Your task to perform on an android device: show emergency info Image 0: 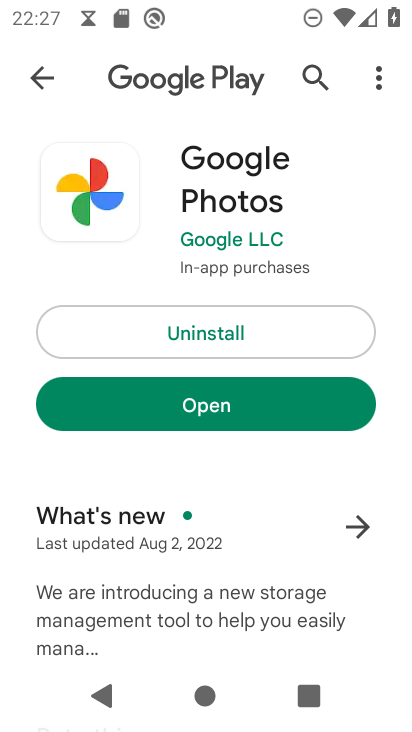
Step 0: press home button
Your task to perform on an android device: show emergency info Image 1: 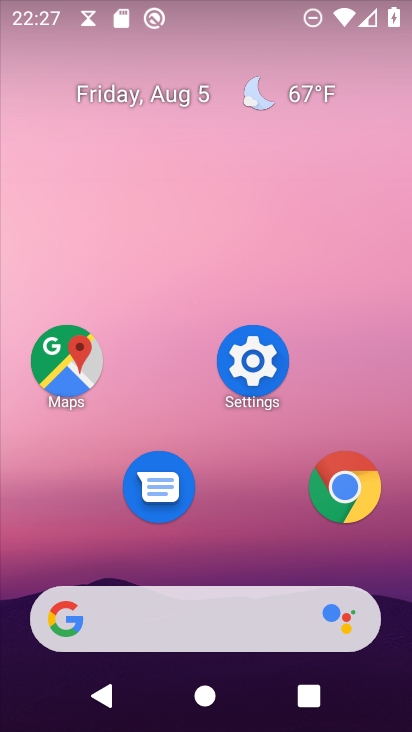
Step 1: click (250, 368)
Your task to perform on an android device: show emergency info Image 2: 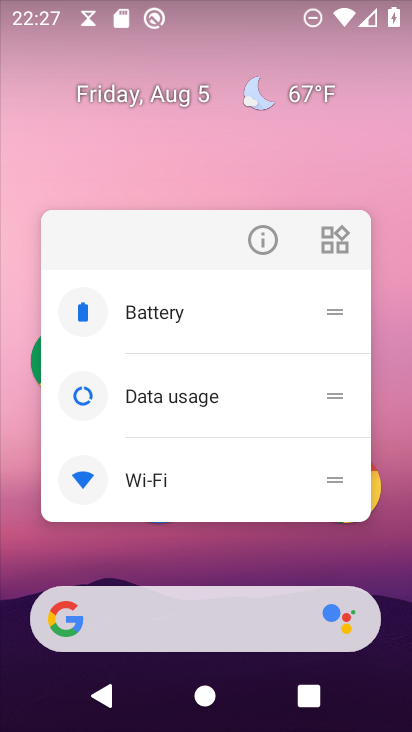
Step 2: click (347, 166)
Your task to perform on an android device: show emergency info Image 3: 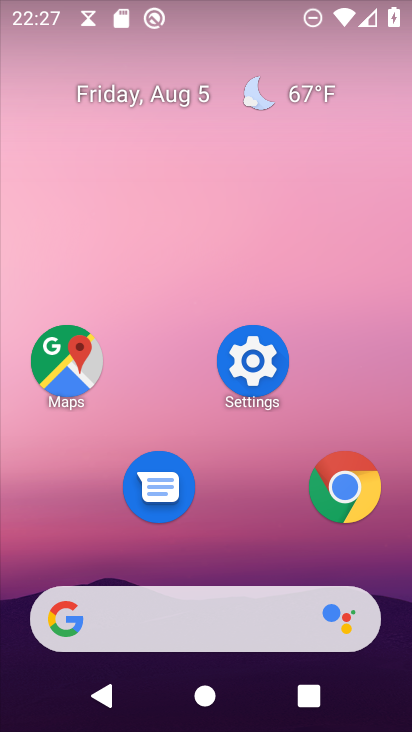
Step 3: click (254, 362)
Your task to perform on an android device: show emergency info Image 4: 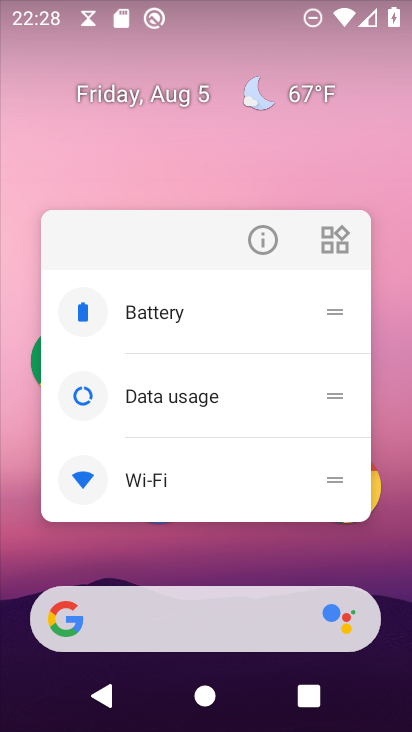
Step 4: click (324, 168)
Your task to perform on an android device: show emergency info Image 5: 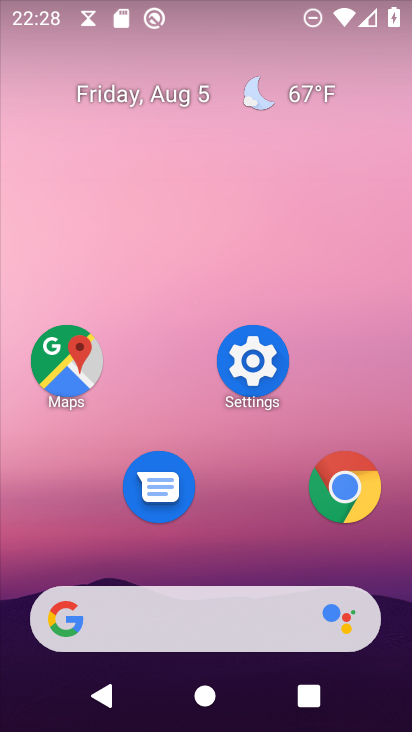
Step 5: click (260, 372)
Your task to perform on an android device: show emergency info Image 6: 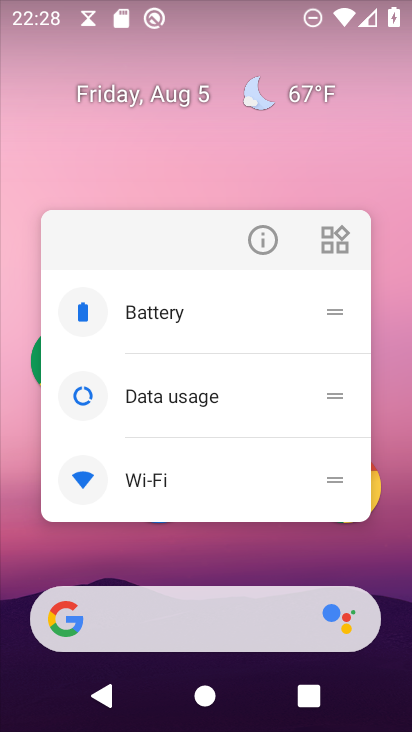
Step 6: click (385, 224)
Your task to perform on an android device: show emergency info Image 7: 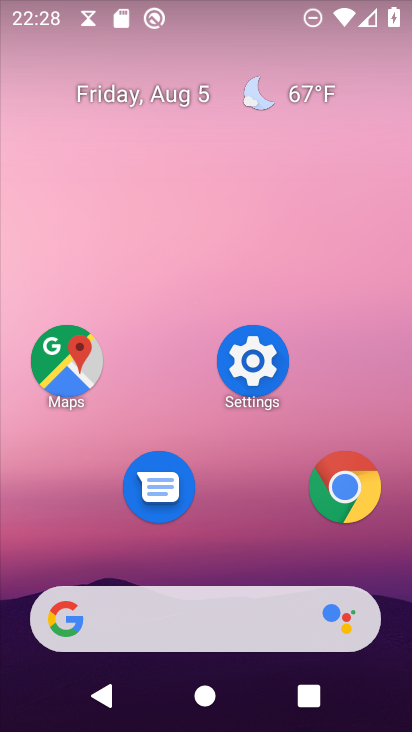
Step 7: click (250, 373)
Your task to perform on an android device: show emergency info Image 8: 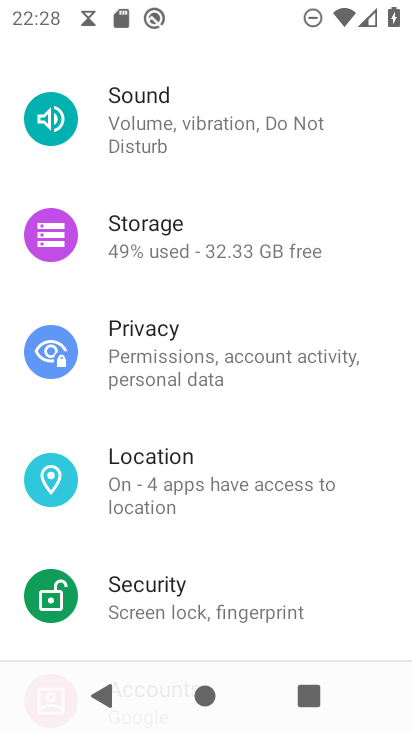
Step 8: drag from (249, 481) to (292, 210)
Your task to perform on an android device: show emergency info Image 9: 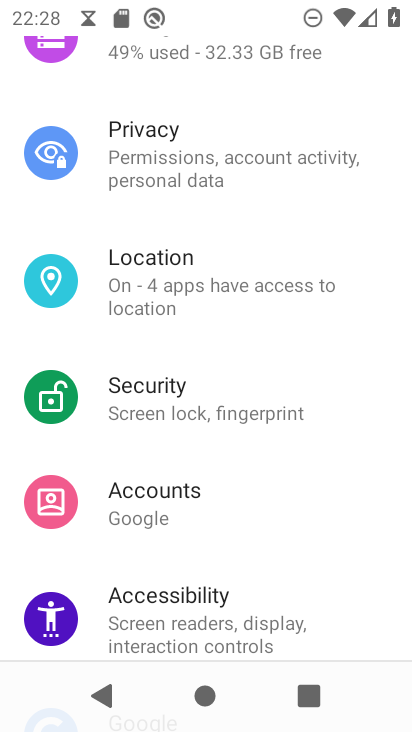
Step 9: drag from (337, 114) to (270, 619)
Your task to perform on an android device: show emergency info Image 10: 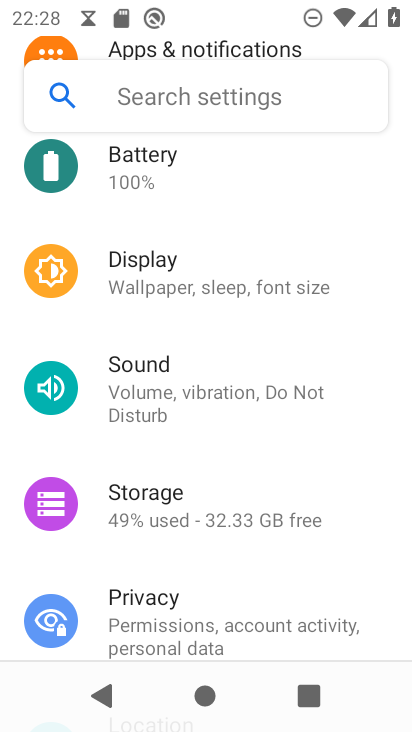
Step 10: drag from (247, 567) to (327, 134)
Your task to perform on an android device: show emergency info Image 11: 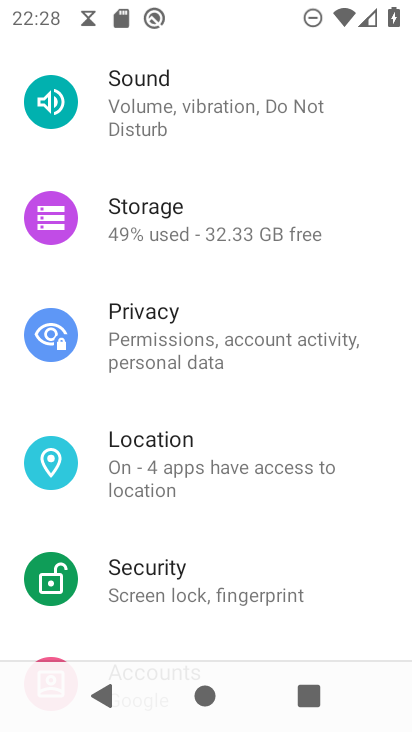
Step 11: drag from (227, 625) to (325, 11)
Your task to perform on an android device: show emergency info Image 12: 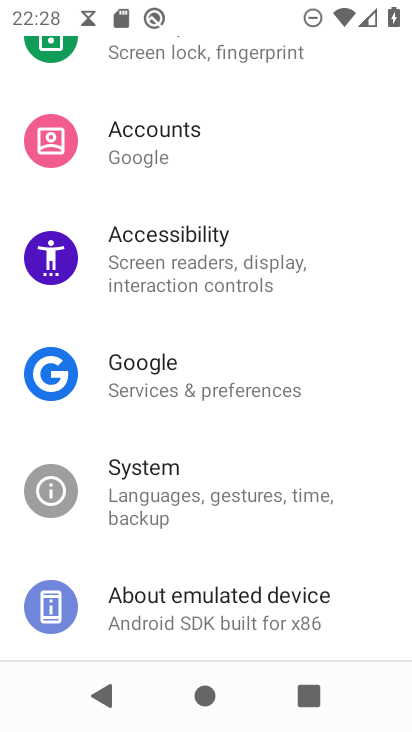
Step 12: click (211, 612)
Your task to perform on an android device: show emergency info Image 13: 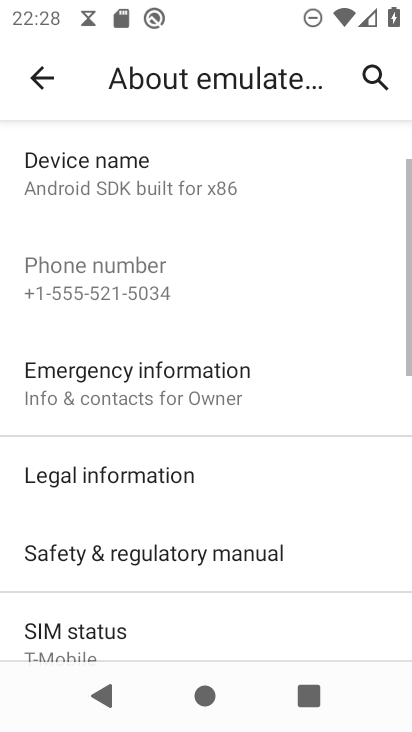
Step 13: click (160, 386)
Your task to perform on an android device: show emergency info Image 14: 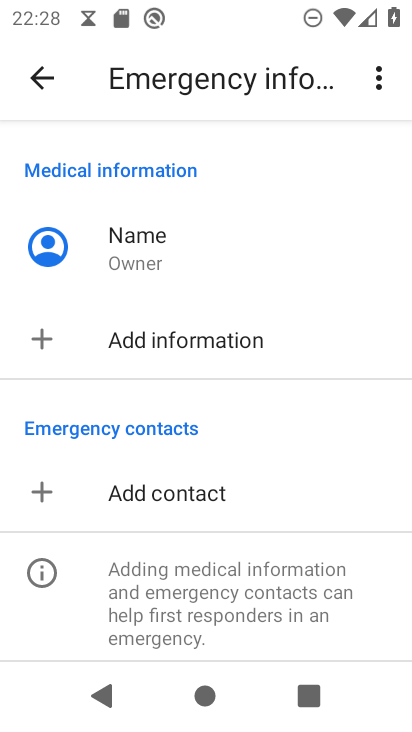
Step 14: task complete